Your task to perform on an android device: allow notifications from all sites in the chrome app Image 0: 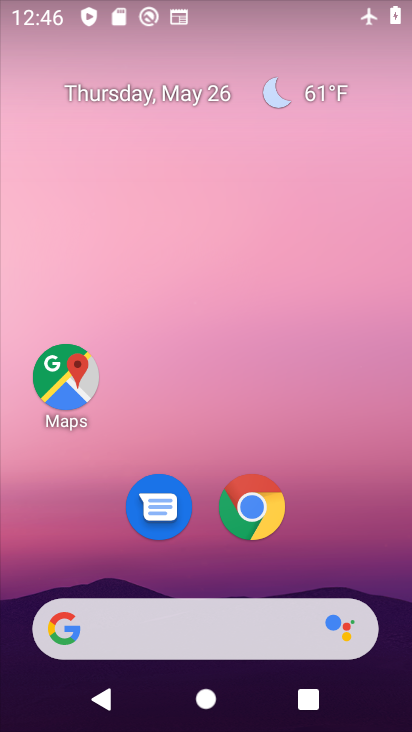
Step 0: click (259, 502)
Your task to perform on an android device: allow notifications from all sites in the chrome app Image 1: 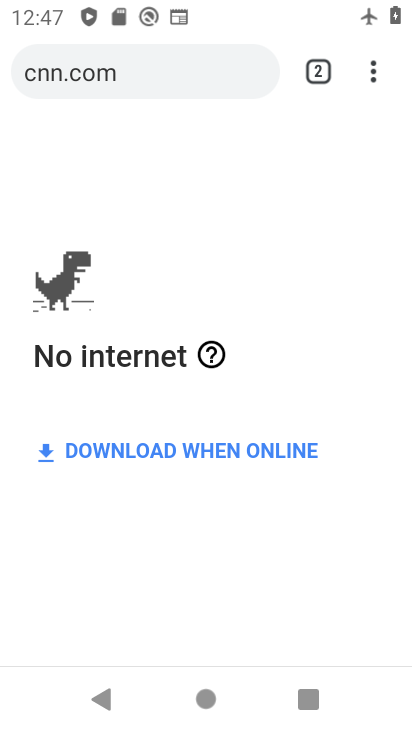
Step 1: task complete